Your task to perform on an android device: Play the last video I watched on Youtube Image 0: 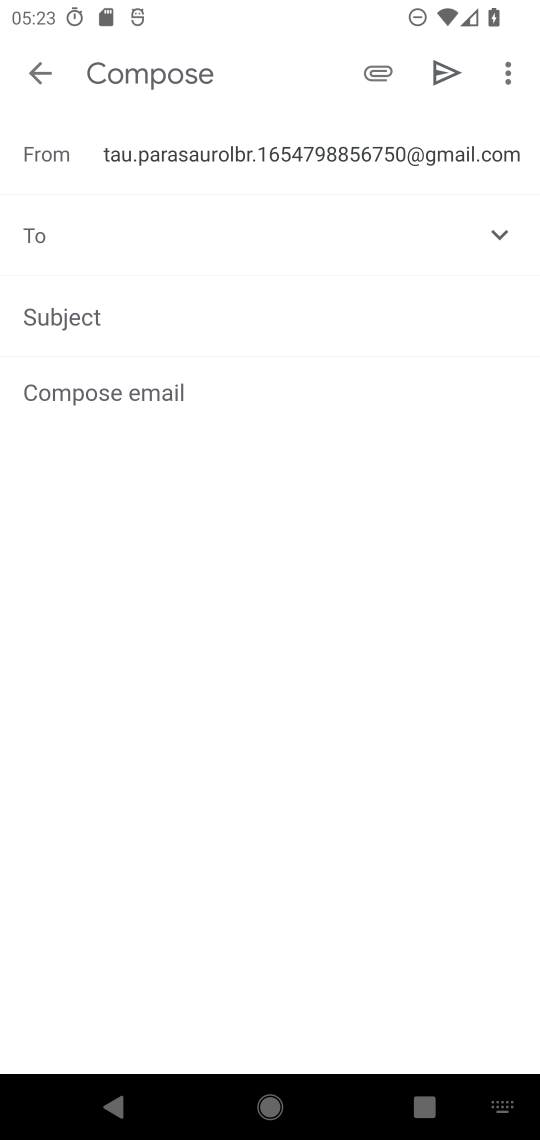
Step 0: press home button
Your task to perform on an android device: Play the last video I watched on Youtube Image 1: 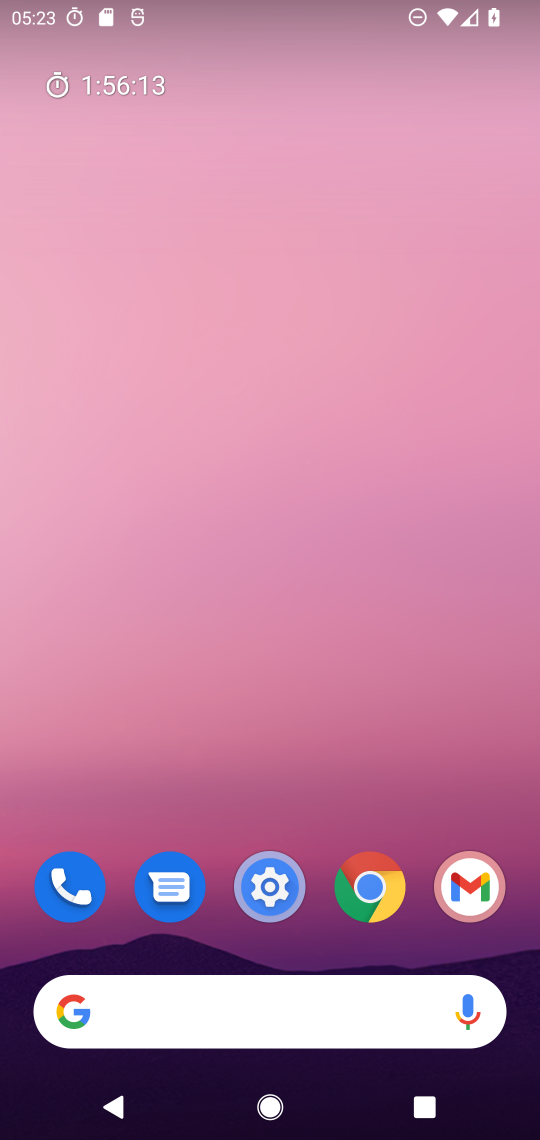
Step 1: drag from (309, 771) to (367, 354)
Your task to perform on an android device: Play the last video I watched on Youtube Image 2: 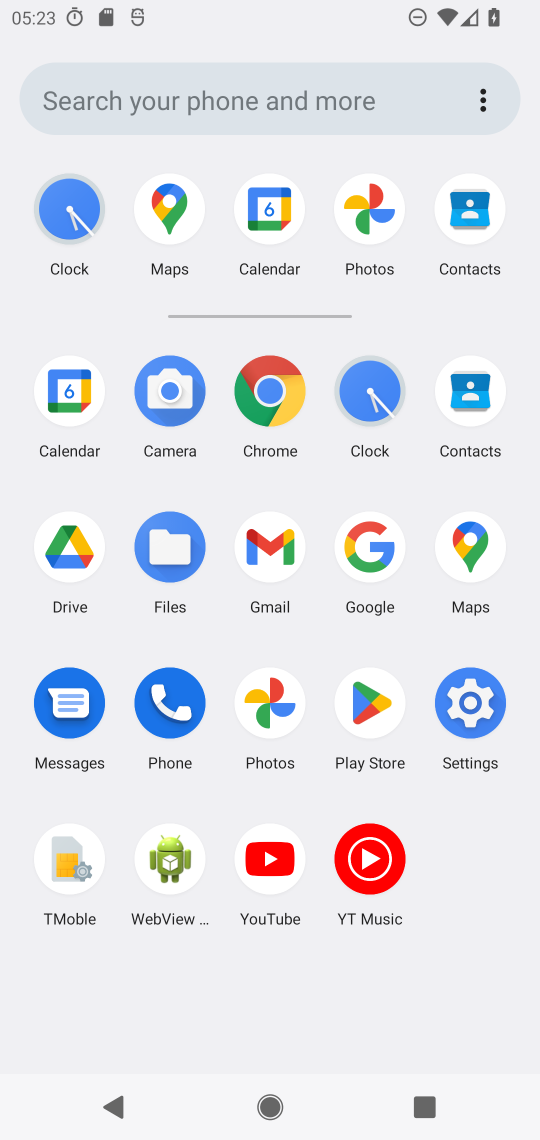
Step 2: click (263, 862)
Your task to perform on an android device: Play the last video I watched on Youtube Image 3: 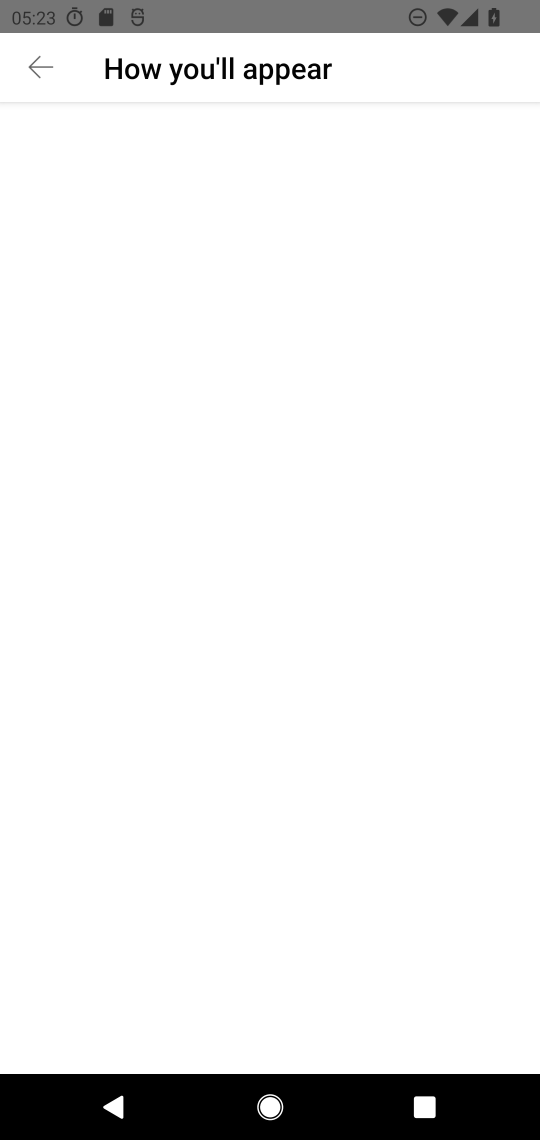
Step 3: press back button
Your task to perform on an android device: Play the last video I watched on Youtube Image 4: 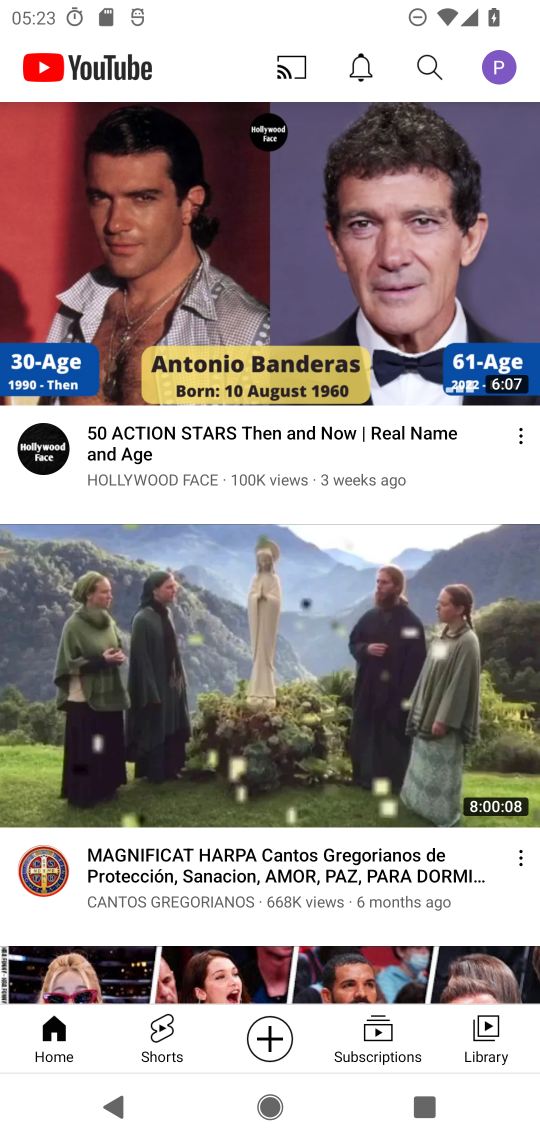
Step 4: click (477, 1036)
Your task to perform on an android device: Play the last video I watched on Youtube Image 5: 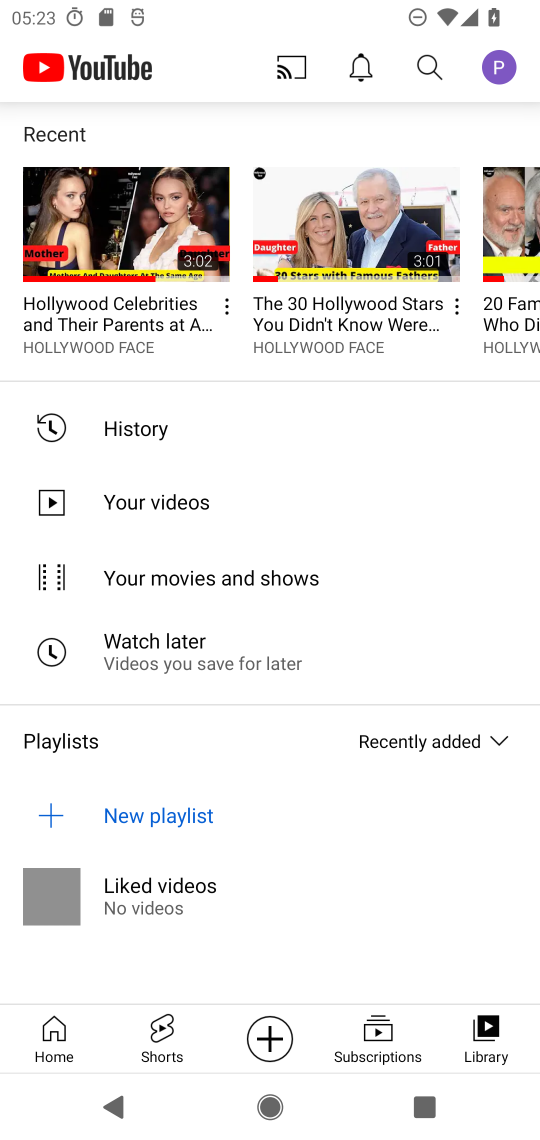
Step 5: click (138, 228)
Your task to perform on an android device: Play the last video I watched on Youtube Image 6: 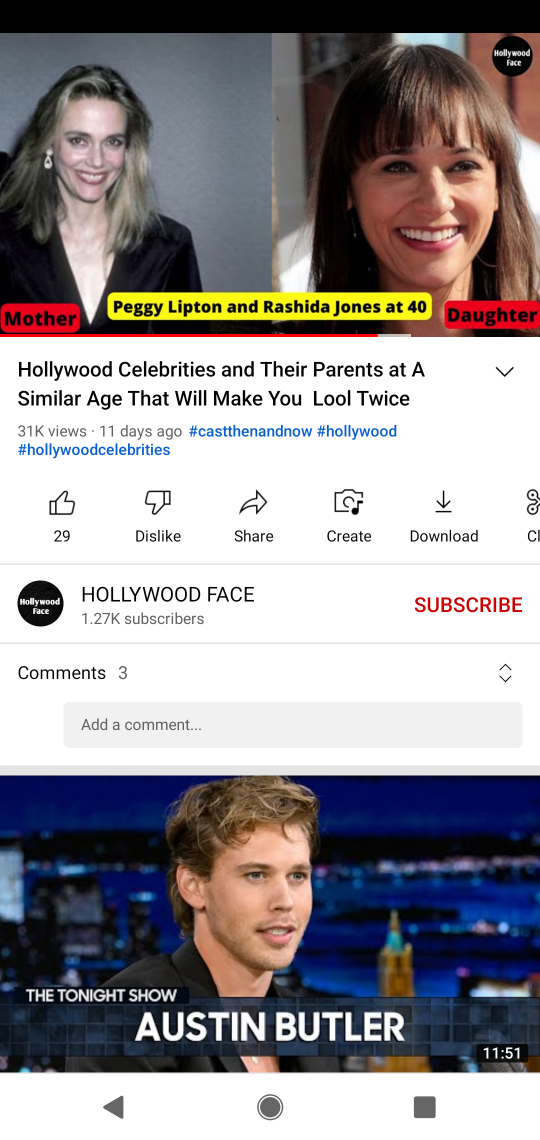
Step 6: task complete